Your task to perform on an android device: Go to Reddit.com Image 0: 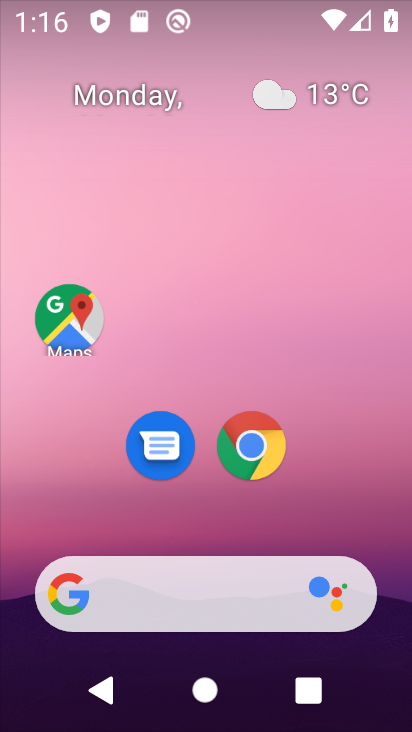
Step 0: drag from (300, 502) to (308, 93)
Your task to perform on an android device: Go to Reddit.com Image 1: 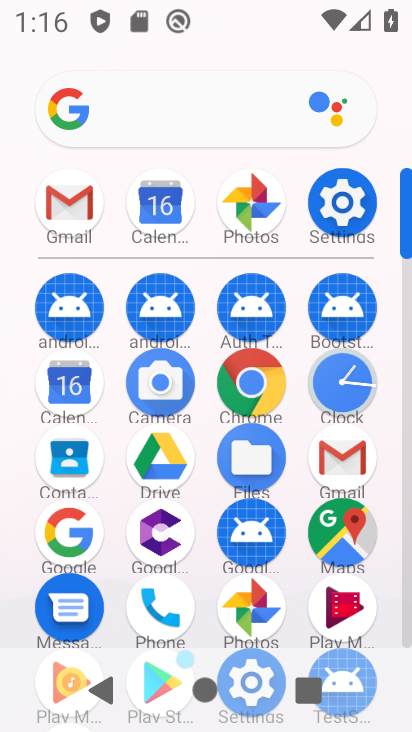
Step 1: click (269, 408)
Your task to perform on an android device: Go to Reddit.com Image 2: 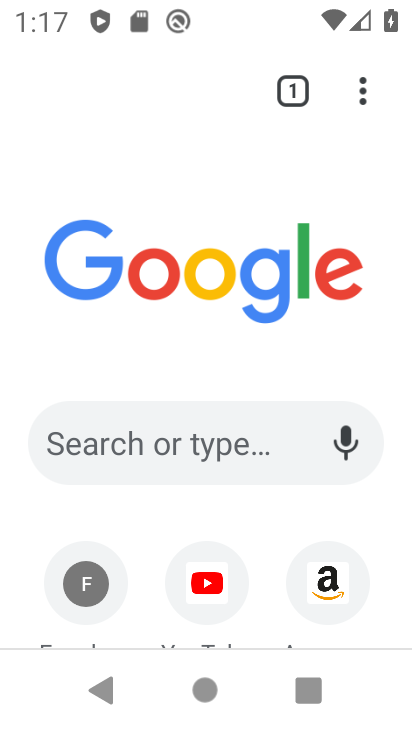
Step 2: drag from (271, 584) to (256, 214)
Your task to perform on an android device: Go to Reddit.com Image 3: 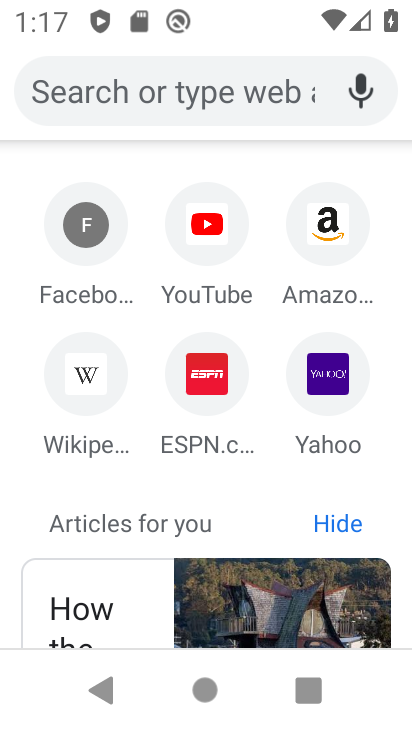
Step 3: click (186, 80)
Your task to perform on an android device: Go to Reddit.com Image 4: 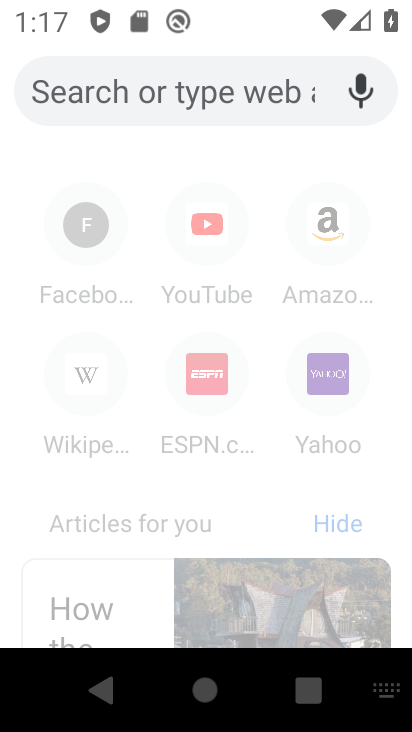
Step 4: type "www.reddit.com"
Your task to perform on an android device: Go to Reddit.com Image 5: 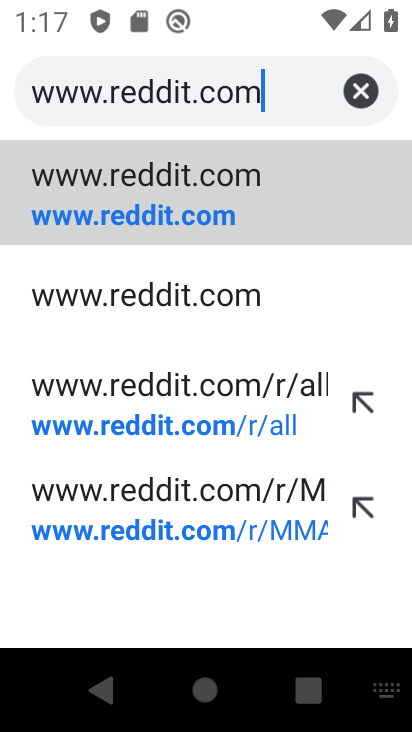
Step 5: click (102, 188)
Your task to perform on an android device: Go to Reddit.com Image 6: 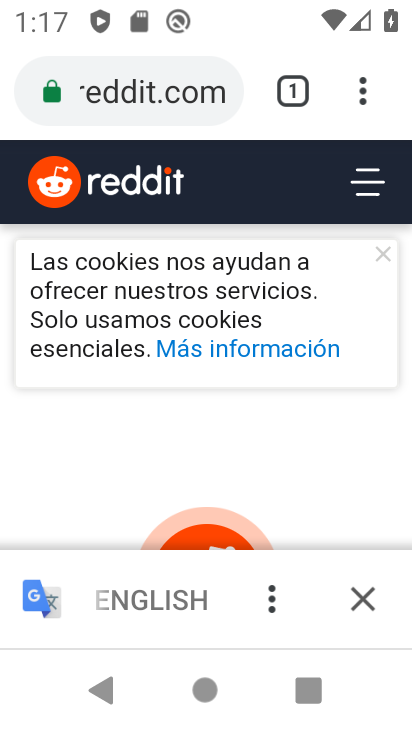
Step 6: task complete